Your task to perform on an android device: What's on my calendar today? Image 0: 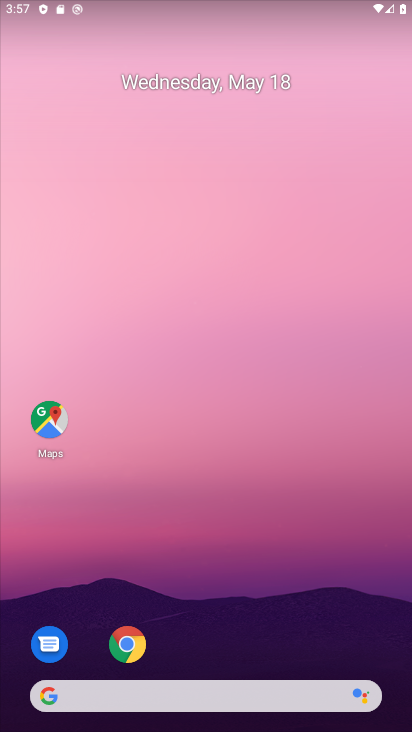
Step 0: drag from (211, 665) to (371, 46)
Your task to perform on an android device: What's on my calendar today? Image 1: 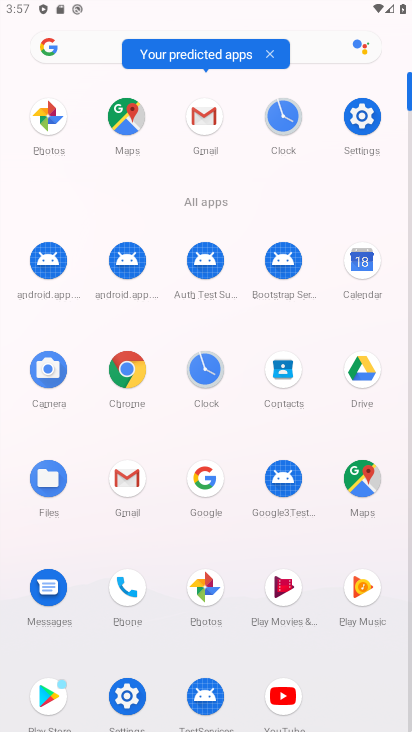
Step 1: click (368, 259)
Your task to perform on an android device: What's on my calendar today? Image 2: 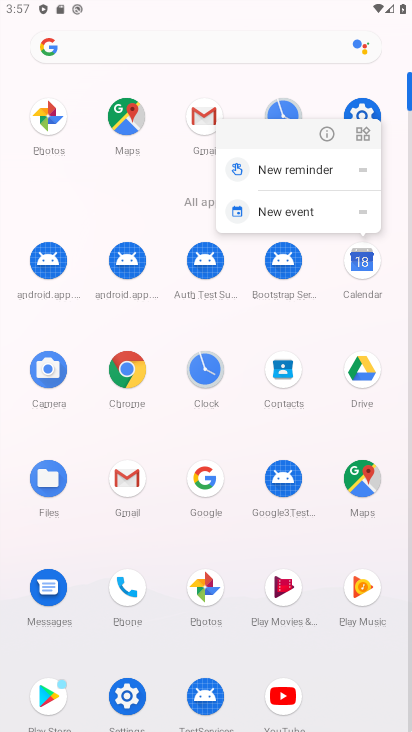
Step 2: click (361, 264)
Your task to perform on an android device: What's on my calendar today? Image 3: 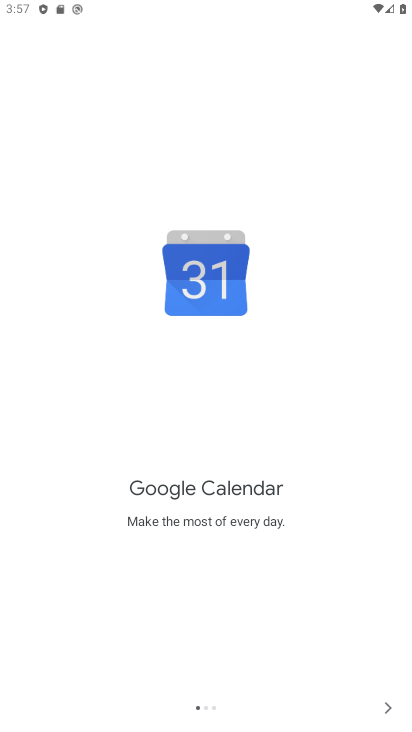
Step 3: click (349, 278)
Your task to perform on an android device: What's on my calendar today? Image 4: 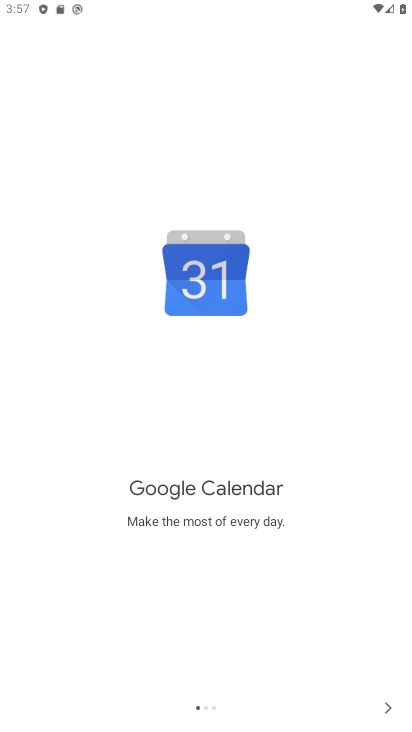
Step 4: click (374, 711)
Your task to perform on an android device: What's on my calendar today? Image 5: 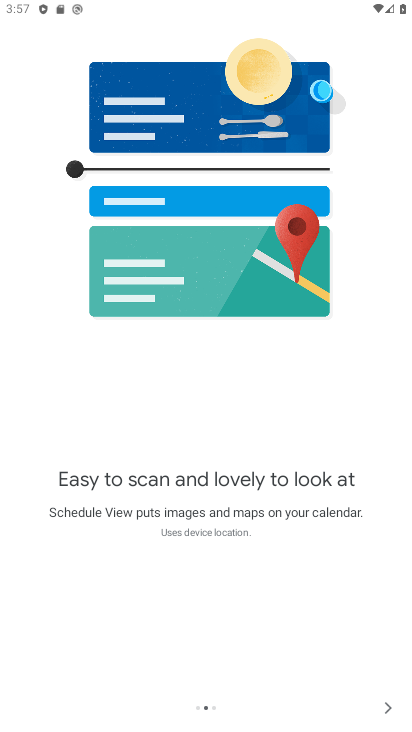
Step 5: click (387, 705)
Your task to perform on an android device: What's on my calendar today? Image 6: 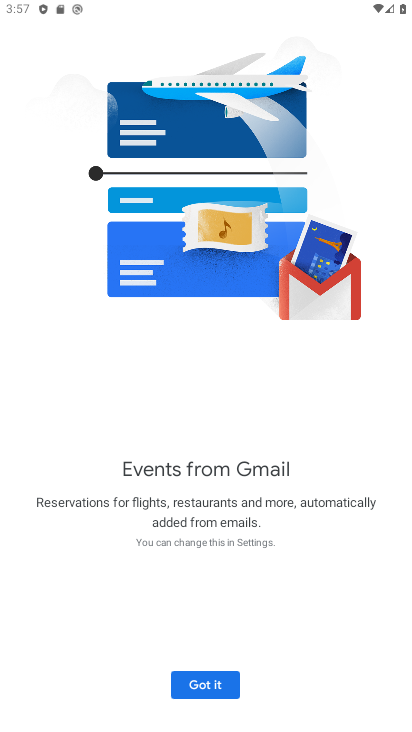
Step 6: click (387, 705)
Your task to perform on an android device: What's on my calendar today? Image 7: 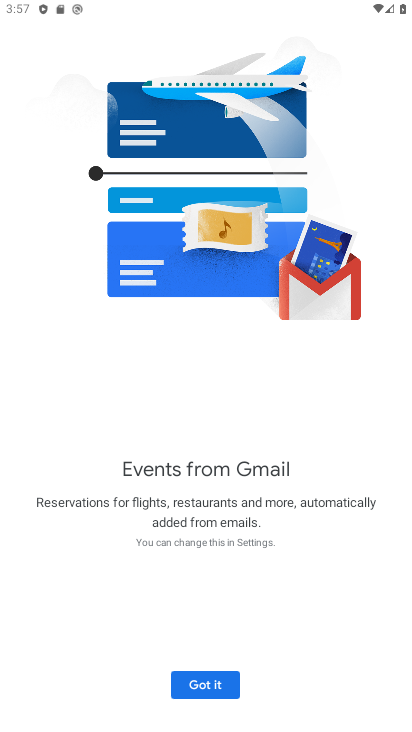
Step 7: click (215, 679)
Your task to perform on an android device: What's on my calendar today? Image 8: 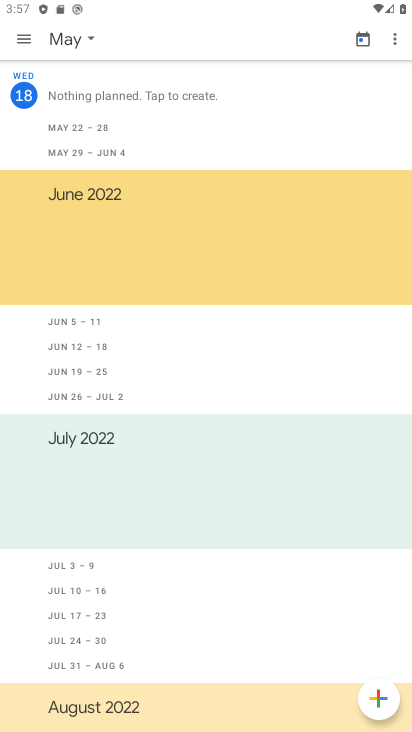
Step 8: click (16, 90)
Your task to perform on an android device: What's on my calendar today? Image 9: 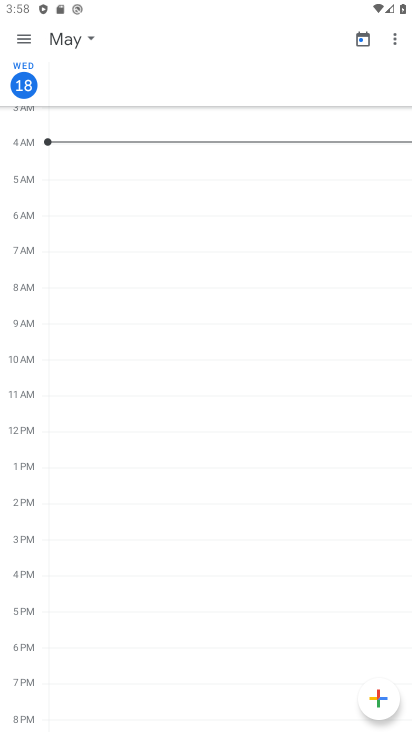
Step 9: task complete